Your task to perform on an android device: turn off improve location accuracy Image 0: 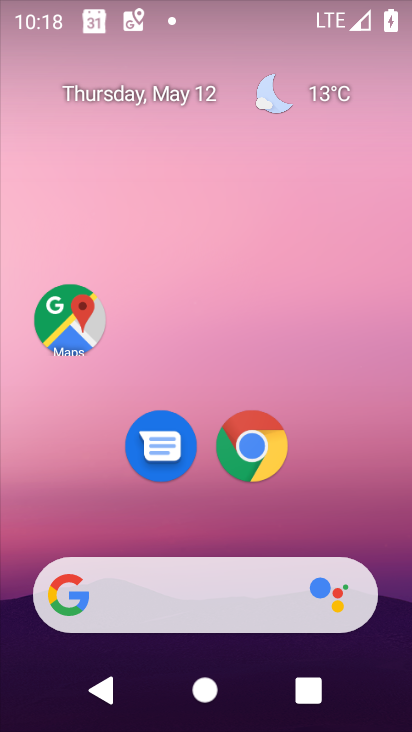
Step 0: drag from (281, 591) to (343, 4)
Your task to perform on an android device: turn off improve location accuracy Image 1: 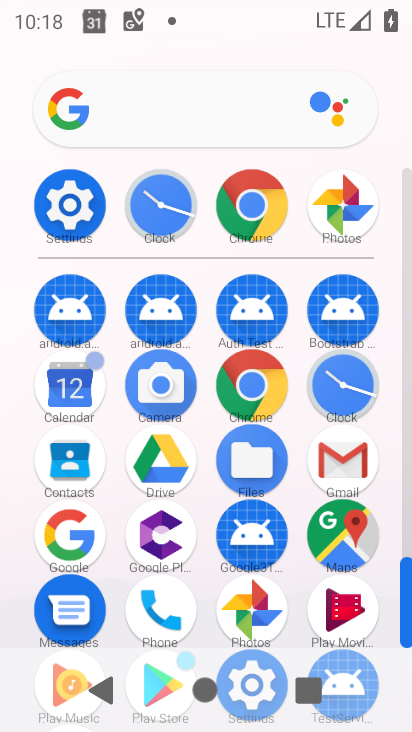
Step 1: click (82, 211)
Your task to perform on an android device: turn off improve location accuracy Image 2: 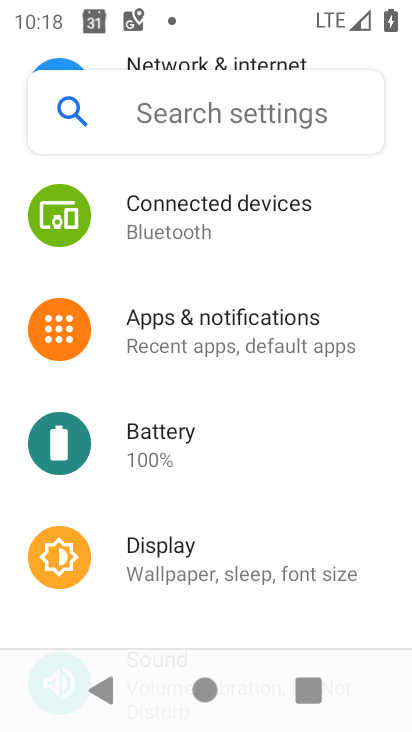
Step 2: drag from (149, 577) to (252, 86)
Your task to perform on an android device: turn off improve location accuracy Image 3: 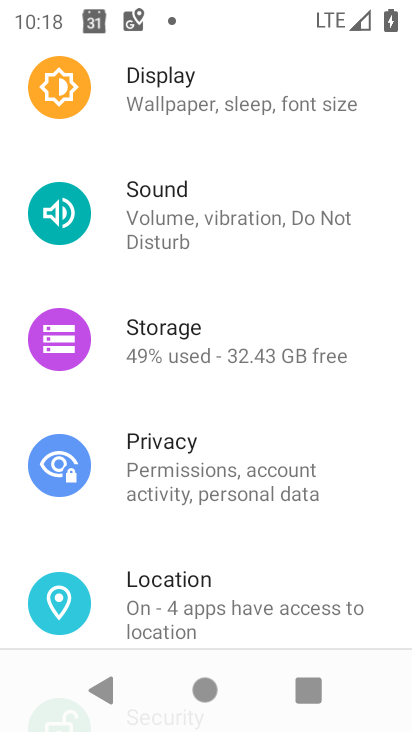
Step 3: click (233, 601)
Your task to perform on an android device: turn off improve location accuracy Image 4: 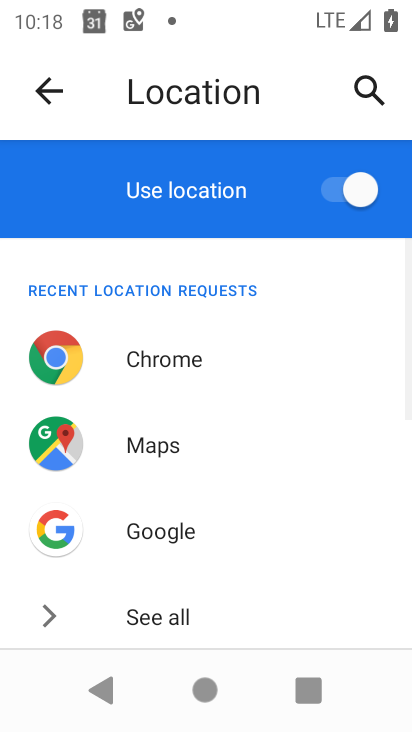
Step 4: drag from (263, 604) to (289, 26)
Your task to perform on an android device: turn off improve location accuracy Image 5: 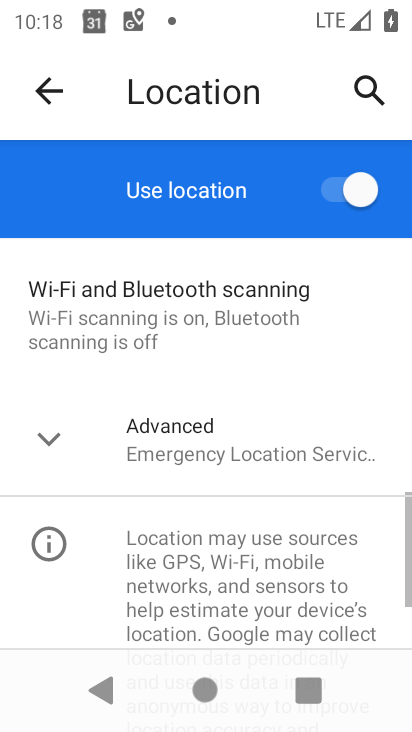
Step 5: click (221, 445)
Your task to perform on an android device: turn off improve location accuracy Image 6: 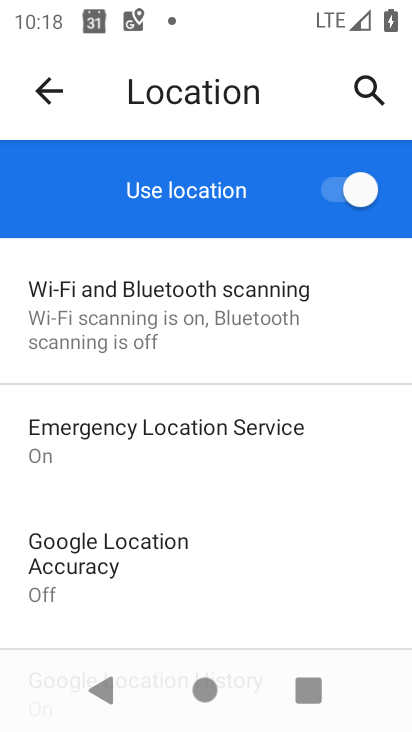
Step 6: click (135, 570)
Your task to perform on an android device: turn off improve location accuracy Image 7: 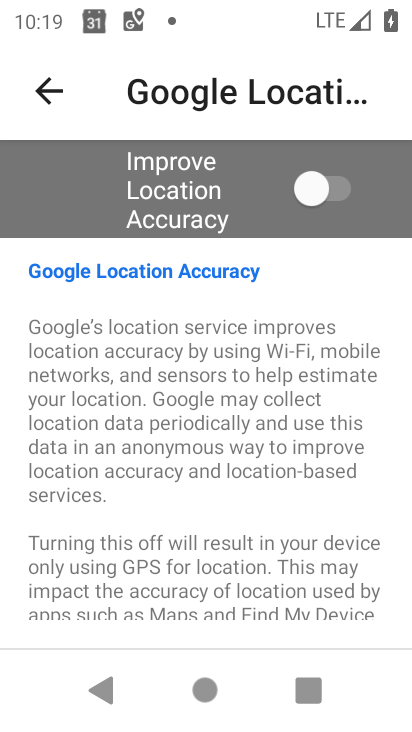
Step 7: task complete